Your task to perform on an android device: Go to eBay Image 0: 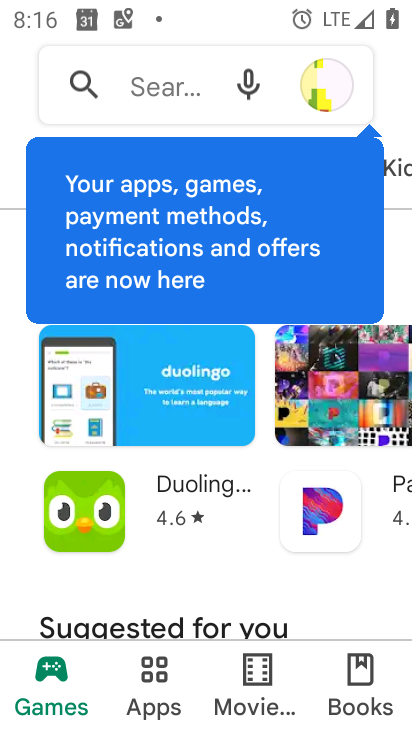
Step 0: press home button
Your task to perform on an android device: Go to eBay Image 1: 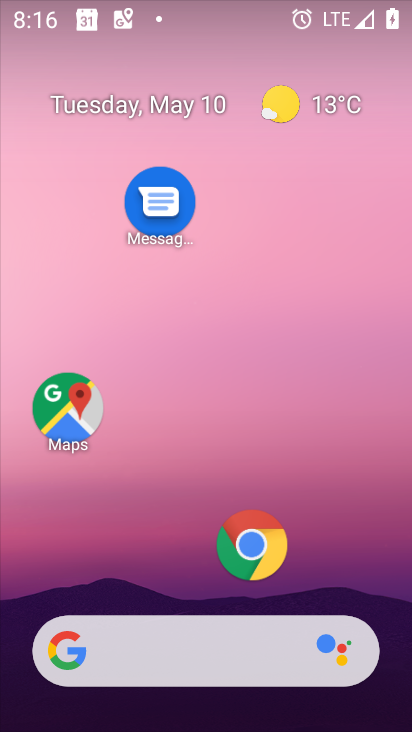
Step 1: click (249, 540)
Your task to perform on an android device: Go to eBay Image 2: 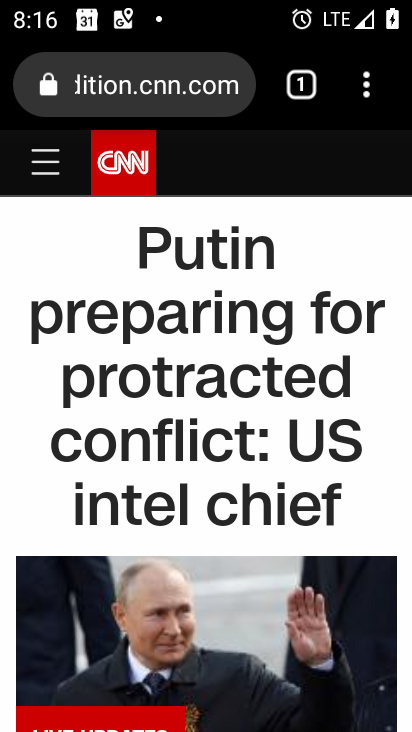
Step 2: click (304, 88)
Your task to perform on an android device: Go to eBay Image 3: 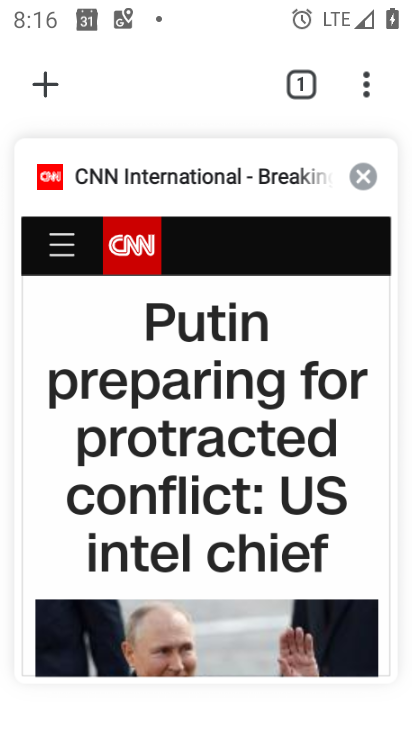
Step 3: click (356, 179)
Your task to perform on an android device: Go to eBay Image 4: 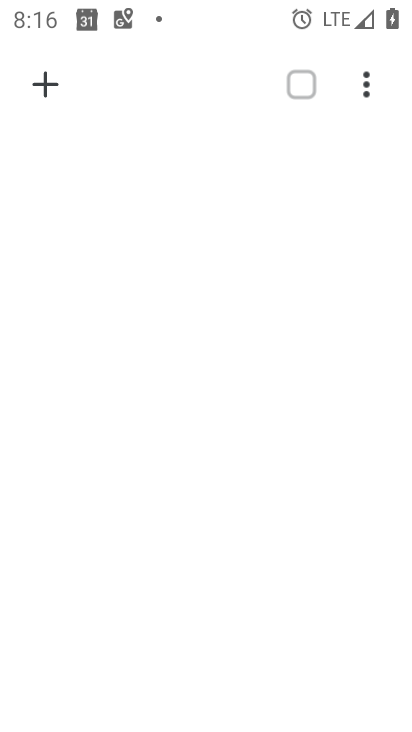
Step 4: click (47, 91)
Your task to perform on an android device: Go to eBay Image 5: 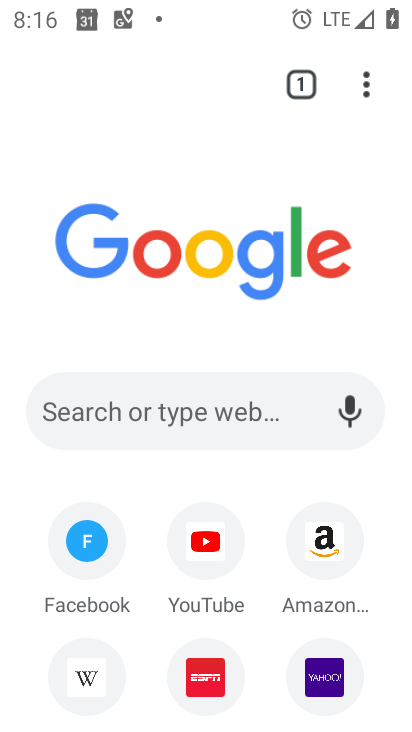
Step 5: drag from (144, 644) to (142, 111)
Your task to perform on an android device: Go to eBay Image 6: 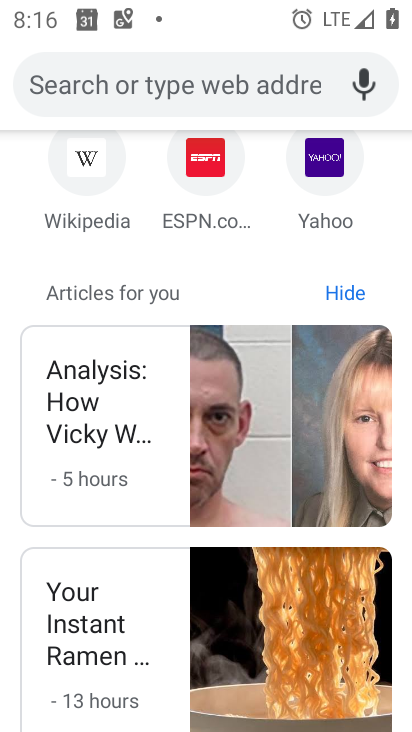
Step 6: drag from (152, 190) to (135, 606)
Your task to perform on an android device: Go to eBay Image 7: 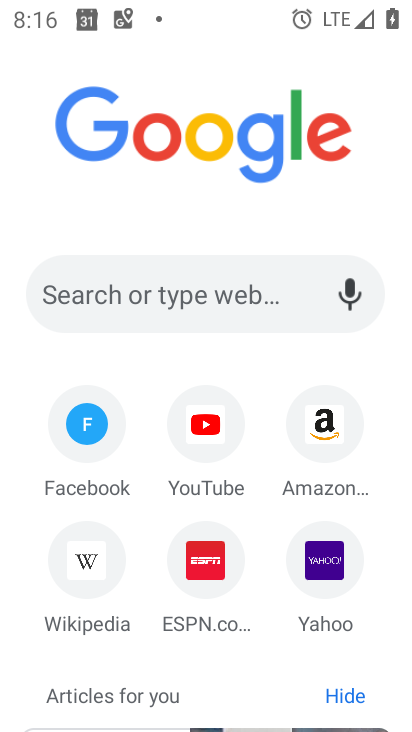
Step 7: click (140, 287)
Your task to perform on an android device: Go to eBay Image 8: 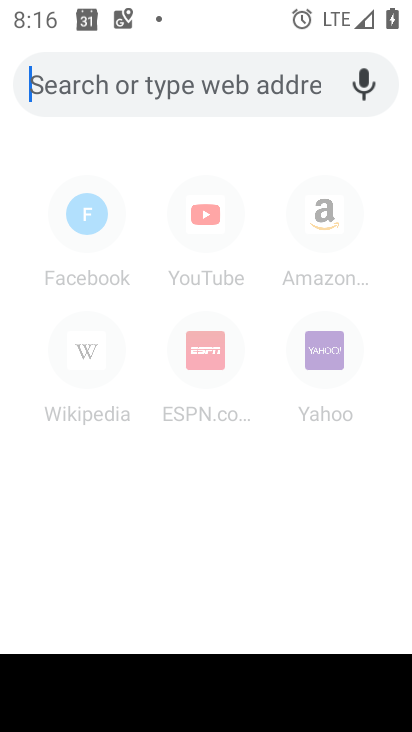
Step 8: type "ebay"
Your task to perform on an android device: Go to eBay Image 9: 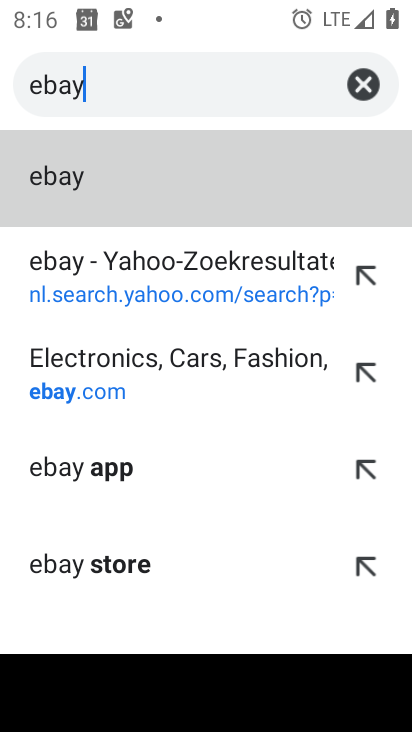
Step 9: click (177, 285)
Your task to perform on an android device: Go to eBay Image 10: 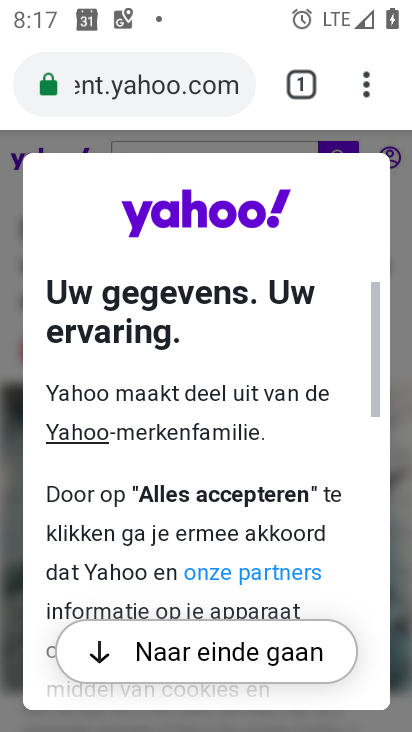
Step 10: click (196, 76)
Your task to perform on an android device: Go to eBay Image 11: 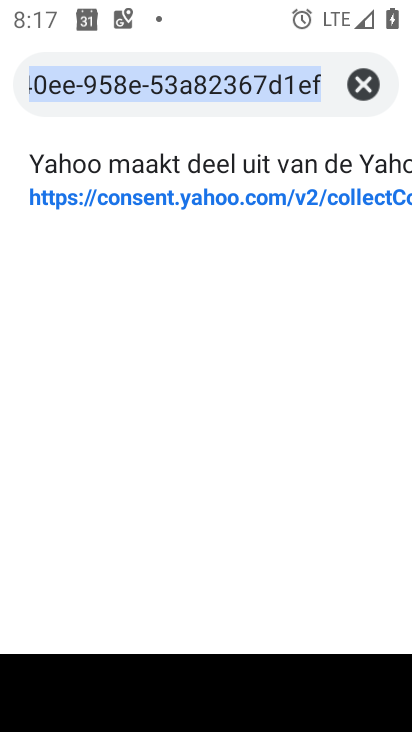
Step 11: click (364, 84)
Your task to perform on an android device: Go to eBay Image 12: 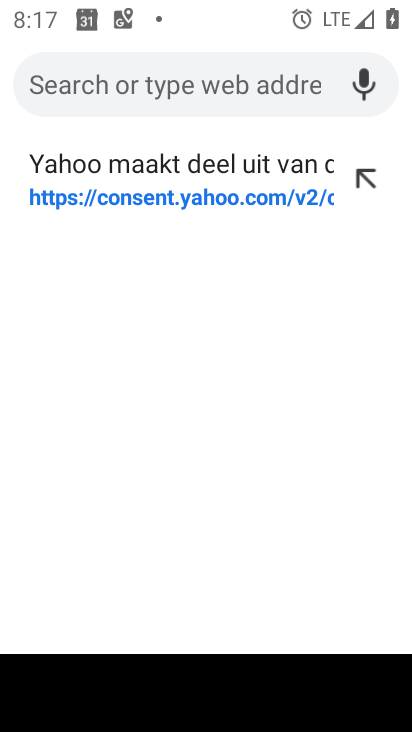
Step 12: type "ebay"
Your task to perform on an android device: Go to eBay Image 13: 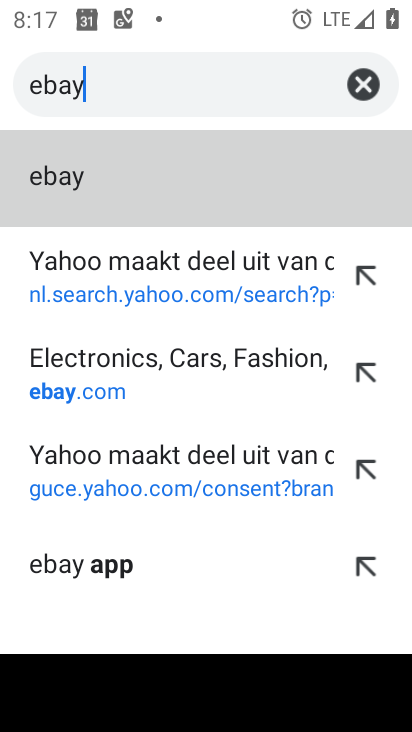
Step 13: type ""
Your task to perform on an android device: Go to eBay Image 14: 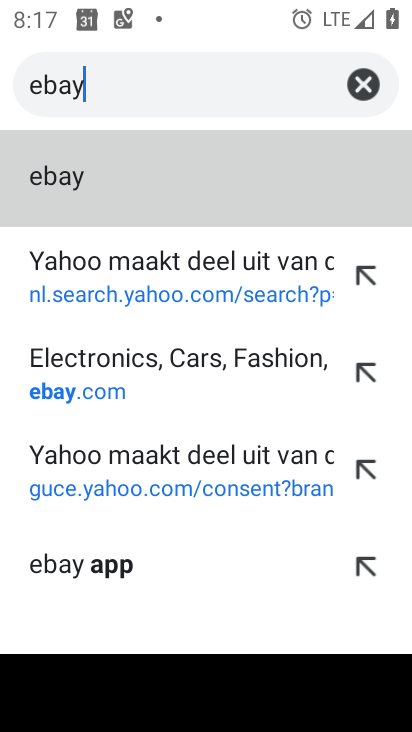
Step 14: click (131, 388)
Your task to perform on an android device: Go to eBay Image 15: 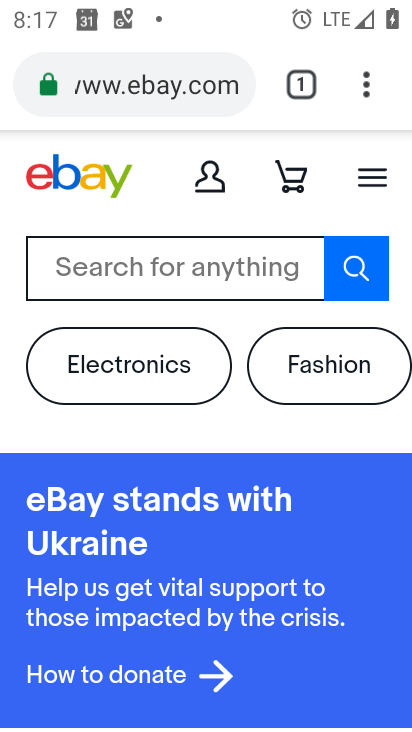
Step 15: task complete